Your task to perform on an android device: open app "Paramount+ | Peak Streaming" (install if not already installed), go to login, and select forgot password Image 0: 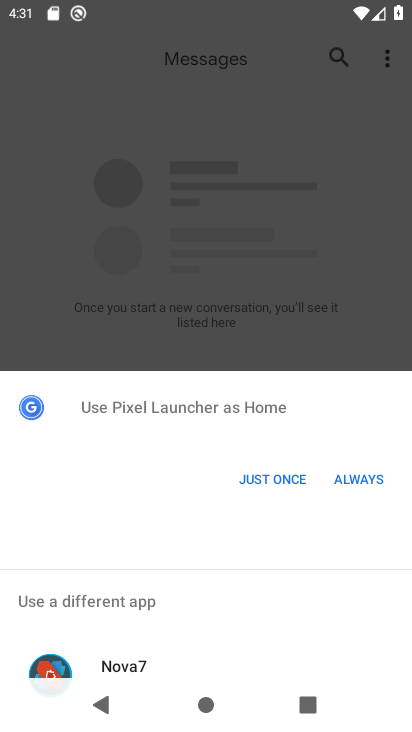
Step 0: press home button
Your task to perform on an android device: open app "Paramount+ | Peak Streaming" (install if not already installed), go to login, and select forgot password Image 1: 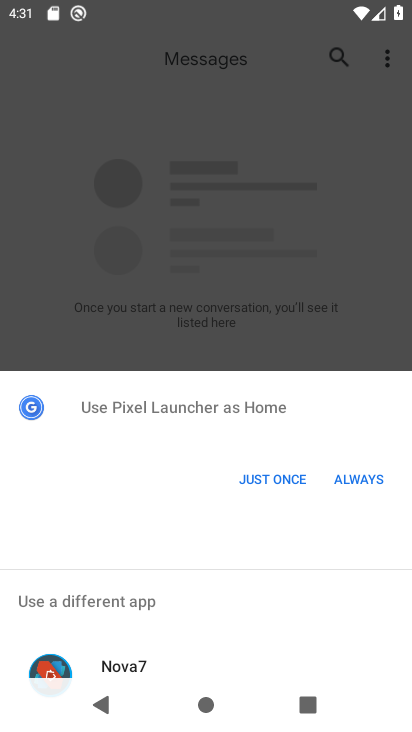
Step 1: click (241, 216)
Your task to perform on an android device: open app "Paramount+ | Peak Streaming" (install if not already installed), go to login, and select forgot password Image 2: 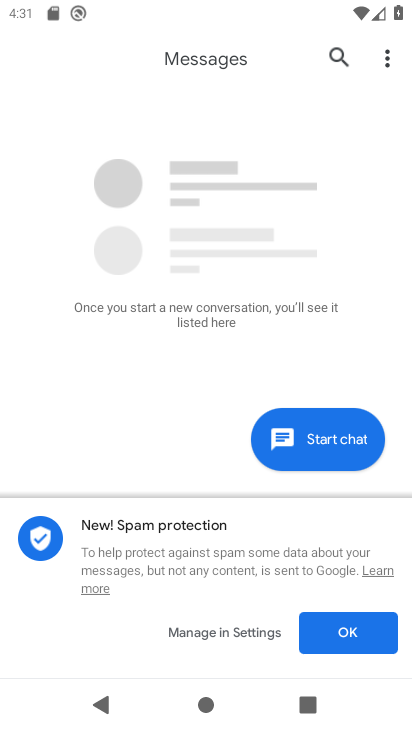
Step 2: press home button
Your task to perform on an android device: open app "Paramount+ | Peak Streaming" (install if not already installed), go to login, and select forgot password Image 3: 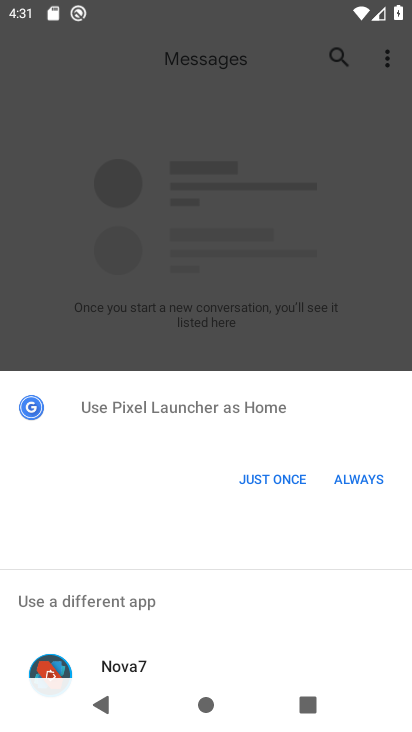
Step 3: click (293, 481)
Your task to perform on an android device: open app "Paramount+ | Peak Streaming" (install if not already installed), go to login, and select forgot password Image 4: 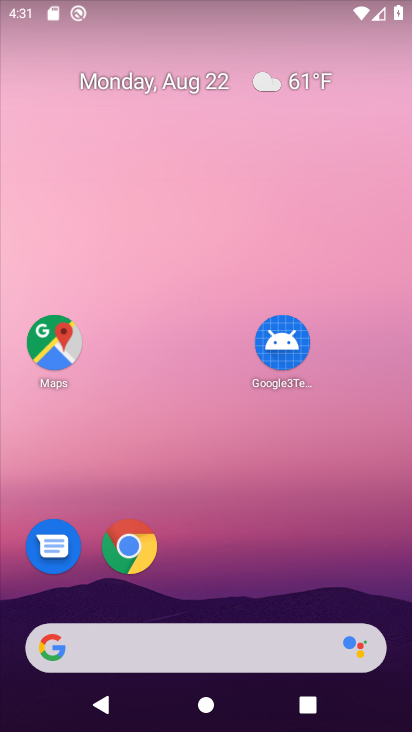
Step 4: drag from (341, 579) to (348, 100)
Your task to perform on an android device: open app "Paramount+ | Peak Streaming" (install if not already installed), go to login, and select forgot password Image 5: 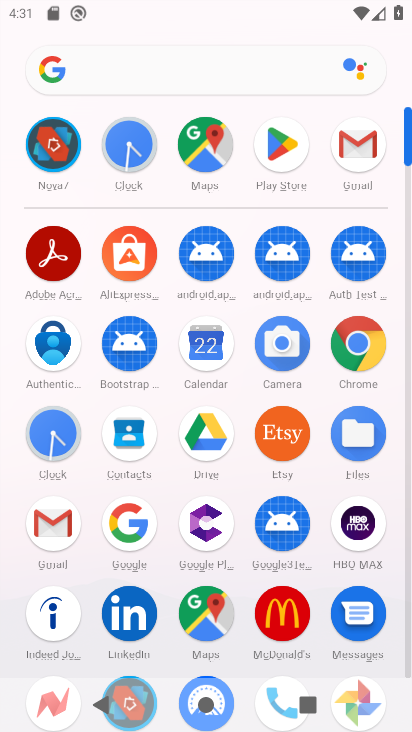
Step 5: drag from (242, 575) to (243, 352)
Your task to perform on an android device: open app "Paramount+ | Peak Streaming" (install if not already installed), go to login, and select forgot password Image 6: 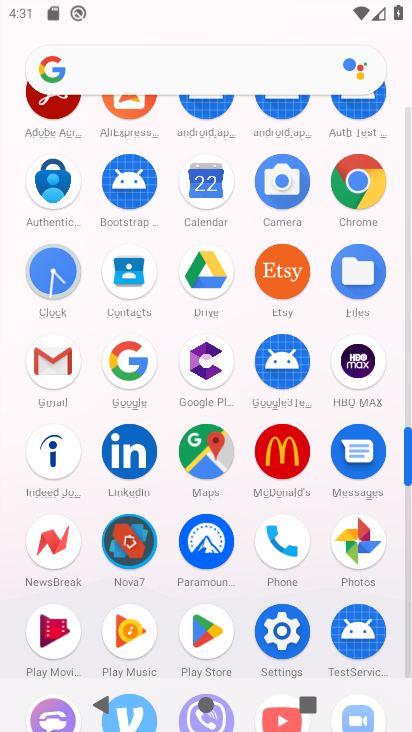
Step 6: click (205, 537)
Your task to perform on an android device: open app "Paramount+ | Peak Streaming" (install if not already installed), go to login, and select forgot password Image 7: 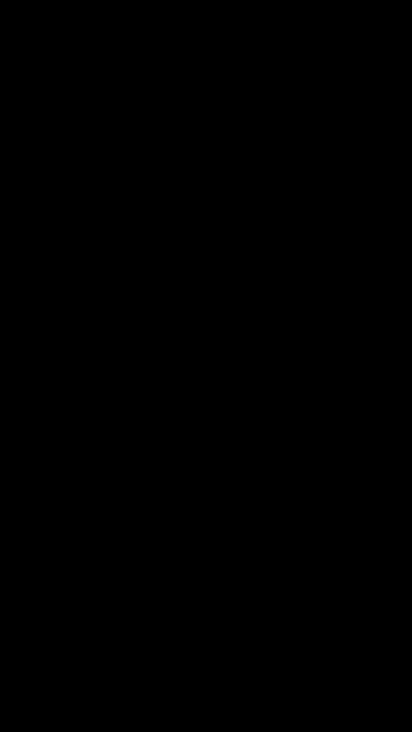
Step 7: task complete